Your task to perform on an android device: check android version Image 0: 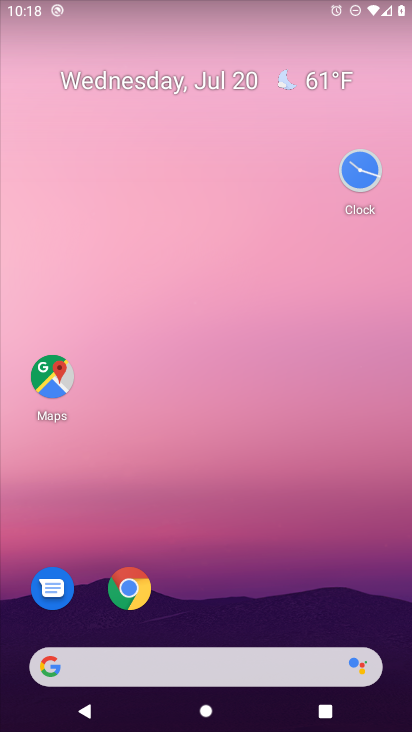
Step 0: drag from (21, 686) to (242, 12)
Your task to perform on an android device: check android version Image 1: 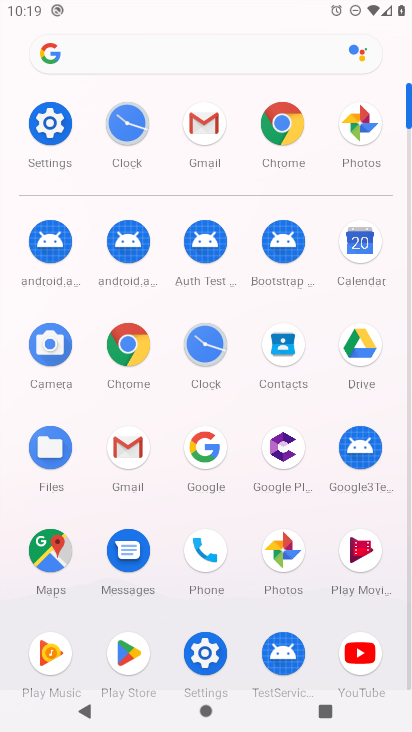
Step 1: click (199, 670)
Your task to perform on an android device: check android version Image 2: 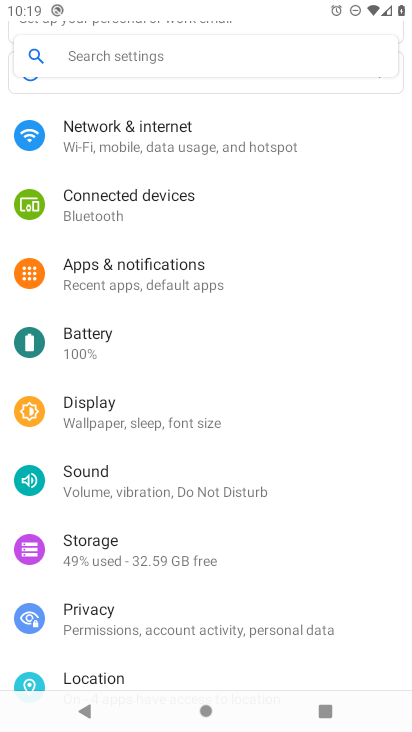
Step 2: drag from (195, 651) to (231, 50)
Your task to perform on an android device: check android version Image 3: 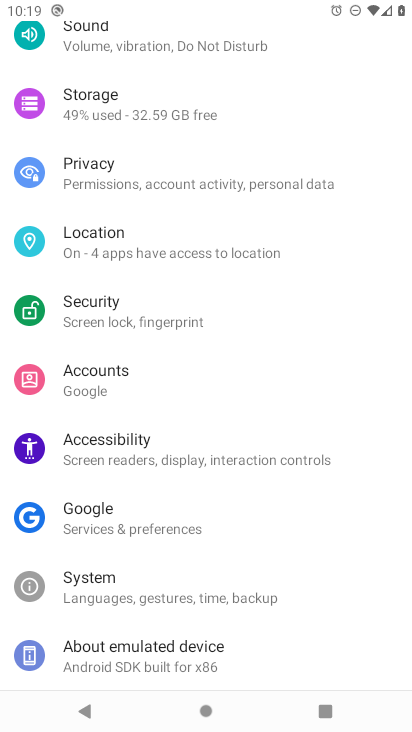
Step 3: click (110, 659)
Your task to perform on an android device: check android version Image 4: 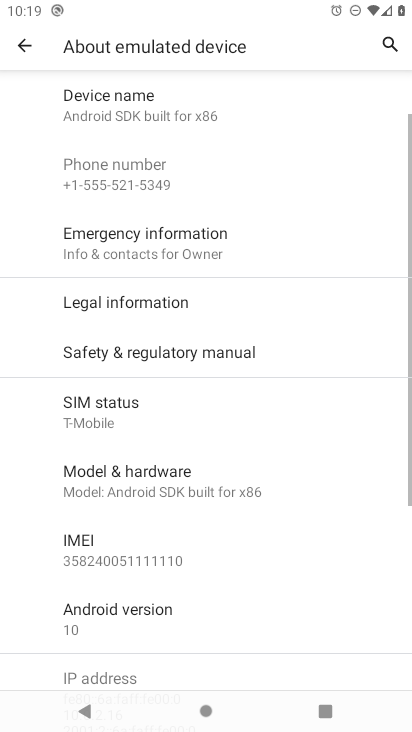
Step 4: click (95, 617)
Your task to perform on an android device: check android version Image 5: 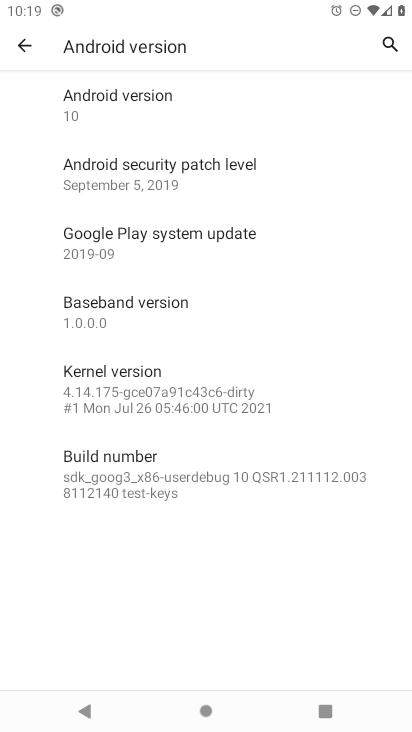
Step 5: task complete